Your task to perform on an android device: What's the weather? Image 0: 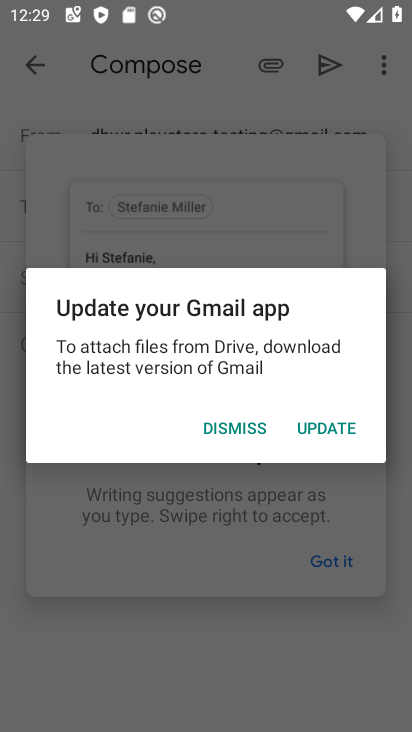
Step 0: press home button
Your task to perform on an android device: What's the weather? Image 1: 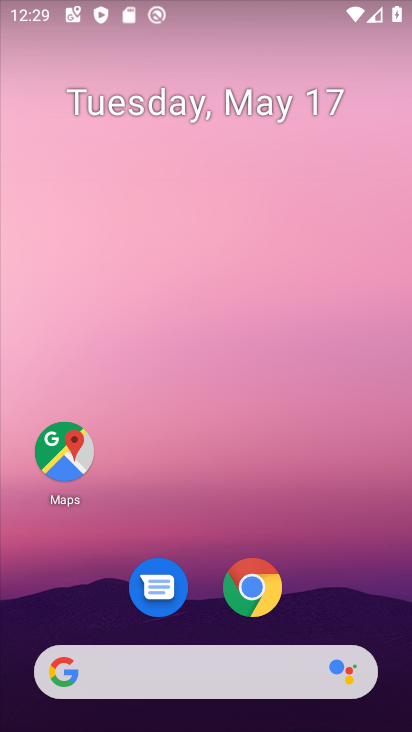
Step 1: click (223, 690)
Your task to perform on an android device: What's the weather? Image 2: 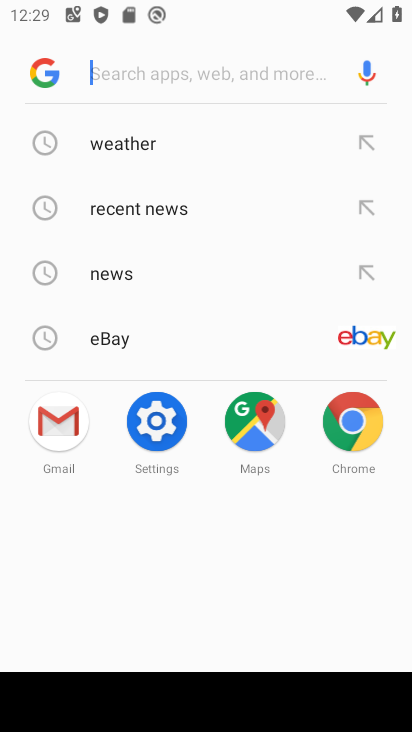
Step 2: click (136, 140)
Your task to perform on an android device: What's the weather? Image 3: 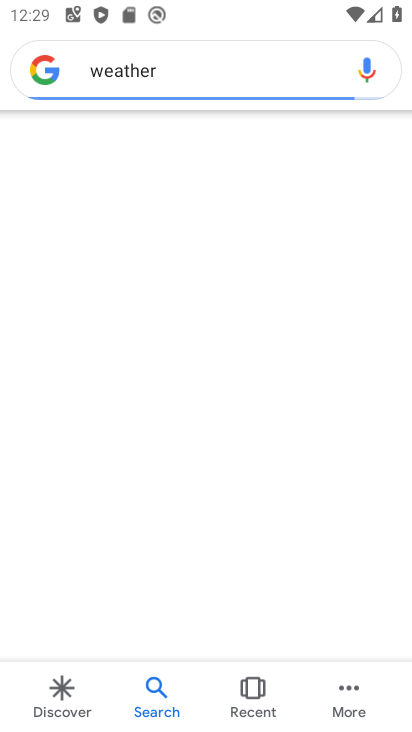
Step 3: task complete